Your task to perform on an android device: Open Amazon Image 0: 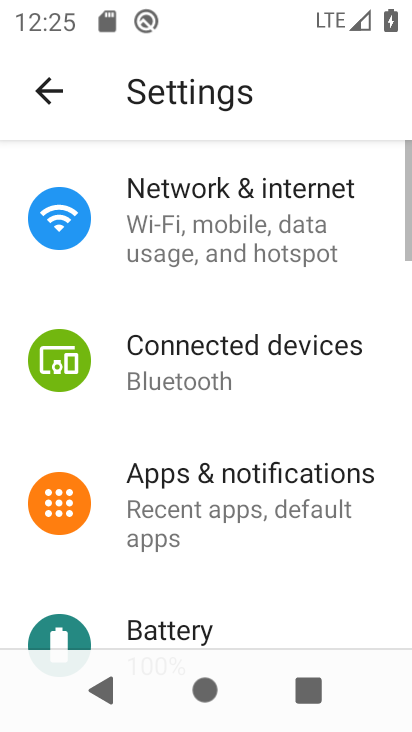
Step 0: press back button
Your task to perform on an android device: Open Amazon Image 1: 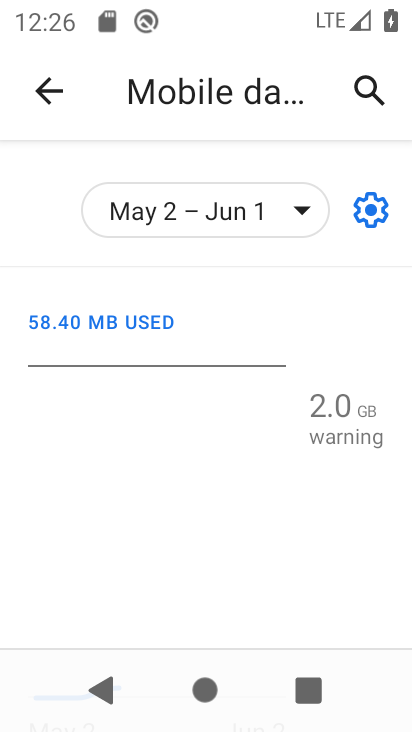
Step 1: press back button
Your task to perform on an android device: Open Amazon Image 2: 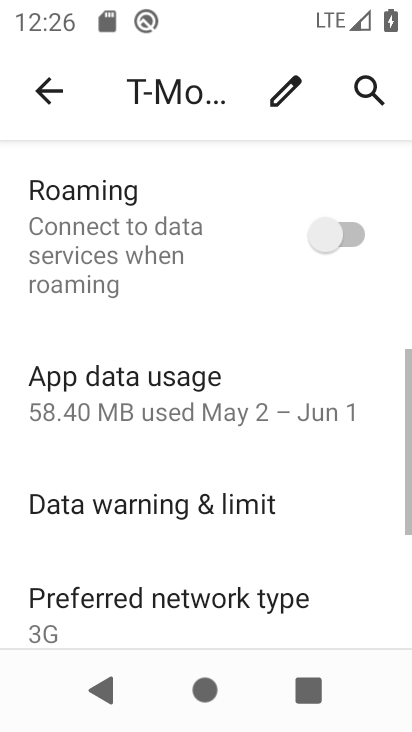
Step 2: press back button
Your task to perform on an android device: Open Amazon Image 3: 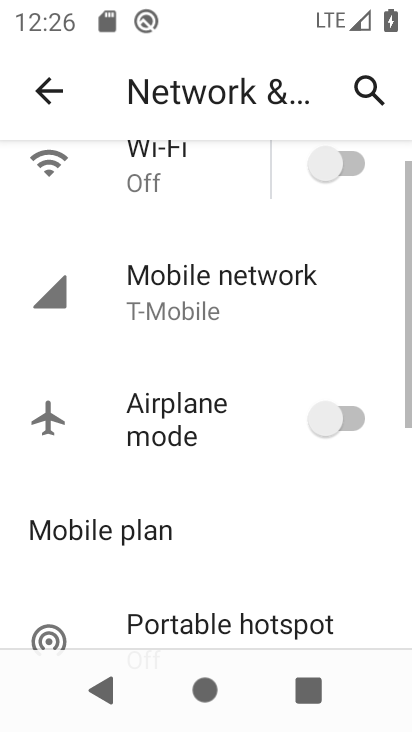
Step 3: press back button
Your task to perform on an android device: Open Amazon Image 4: 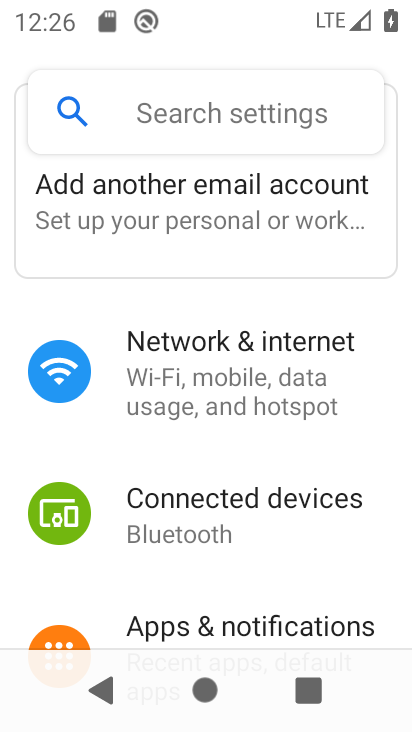
Step 4: press back button
Your task to perform on an android device: Open Amazon Image 5: 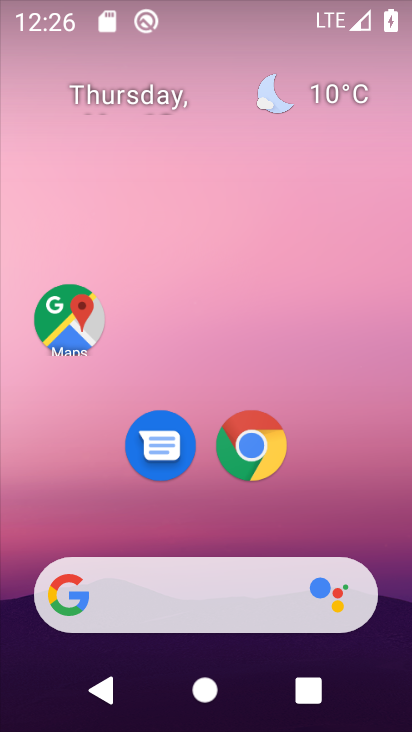
Step 5: click (260, 456)
Your task to perform on an android device: Open Amazon Image 6: 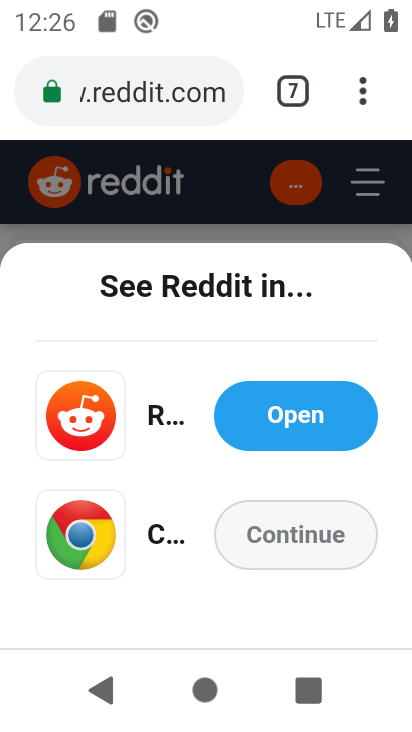
Step 6: click (299, 93)
Your task to perform on an android device: Open Amazon Image 7: 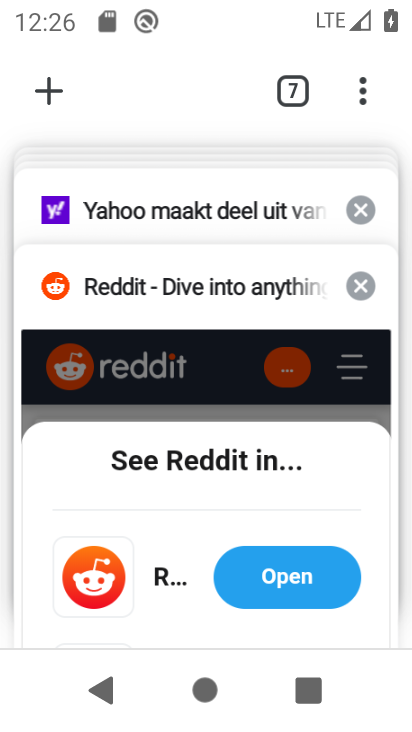
Step 7: drag from (160, 250) to (171, 618)
Your task to perform on an android device: Open Amazon Image 8: 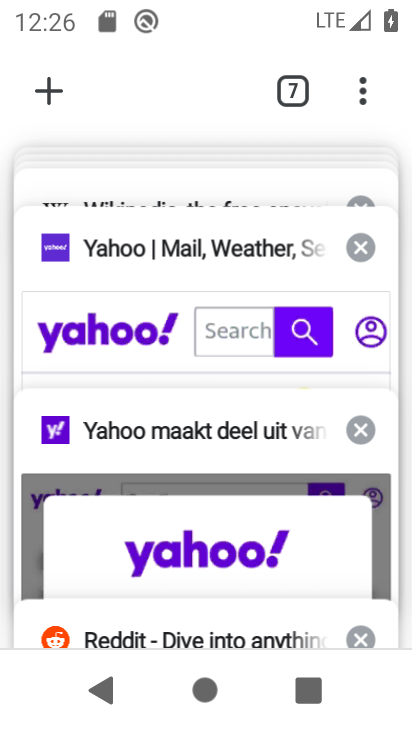
Step 8: drag from (108, 257) to (127, 638)
Your task to perform on an android device: Open Amazon Image 9: 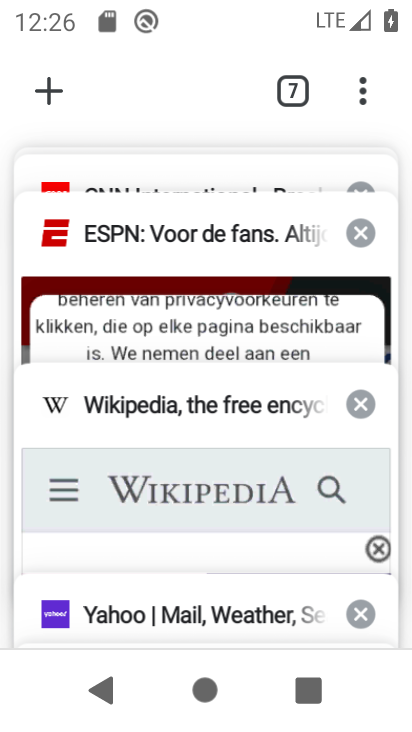
Step 9: drag from (121, 247) to (166, 722)
Your task to perform on an android device: Open Amazon Image 10: 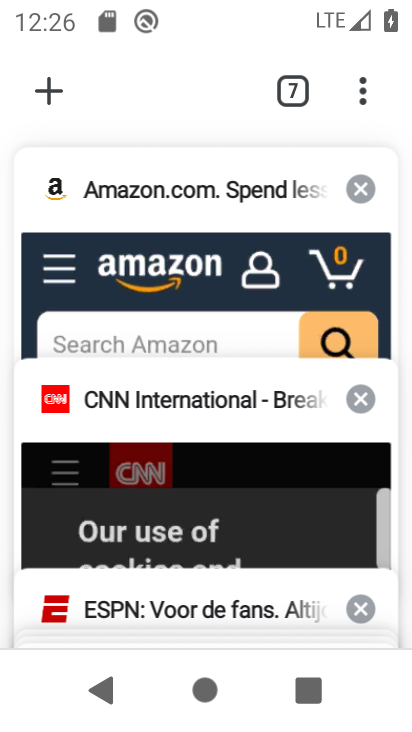
Step 10: click (80, 250)
Your task to perform on an android device: Open Amazon Image 11: 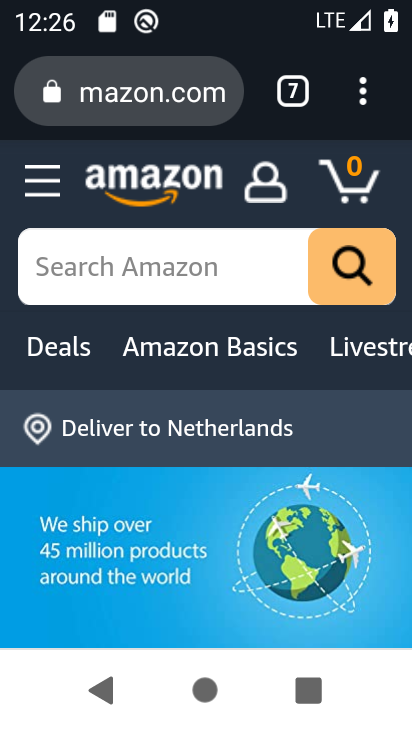
Step 11: task complete